Your task to perform on an android device: Check the news Image 0: 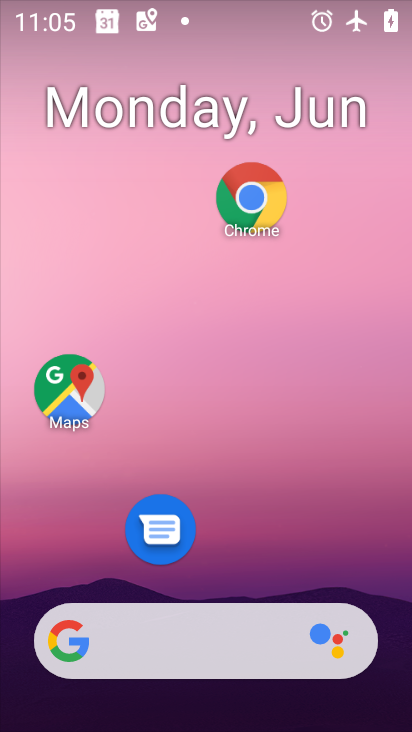
Step 0: drag from (244, 578) to (196, 105)
Your task to perform on an android device: Check the news Image 1: 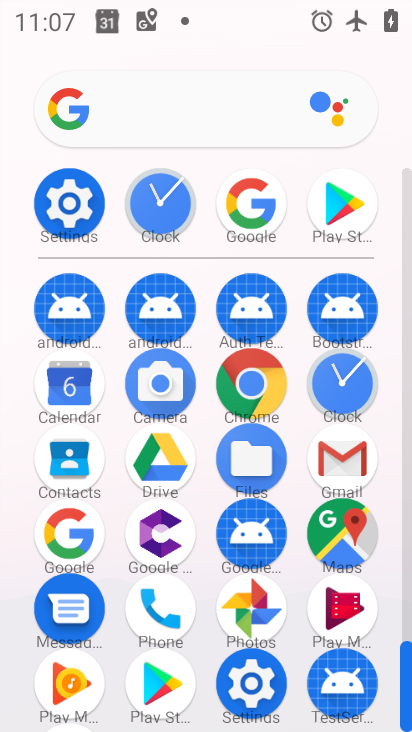
Step 1: click (79, 526)
Your task to perform on an android device: Check the news Image 2: 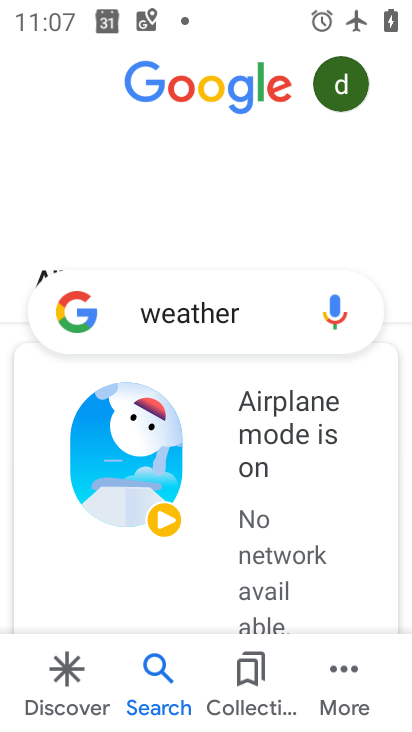
Step 2: click (273, 338)
Your task to perform on an android device: Check the news Image 3: 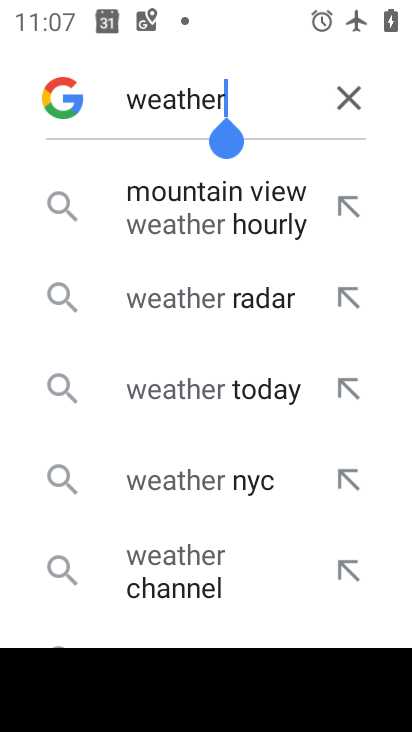
Step 3: click (345, 103)
Your task to perform on an android device: Check the news Image 4: 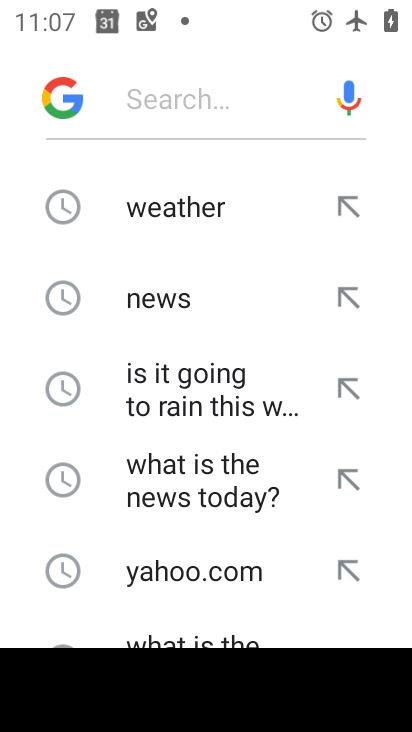
Step 4: click (199, 297)
Your task to perform on an android device: Check the news Image 5: 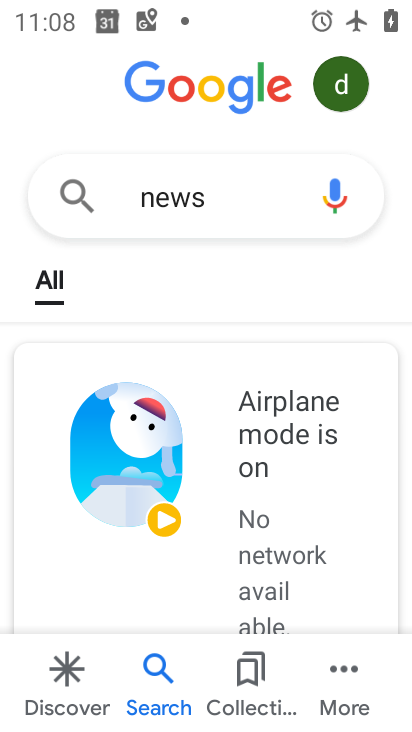
Step 5: task complete